Your task to perform on an android device: turn on wifi Image 0: 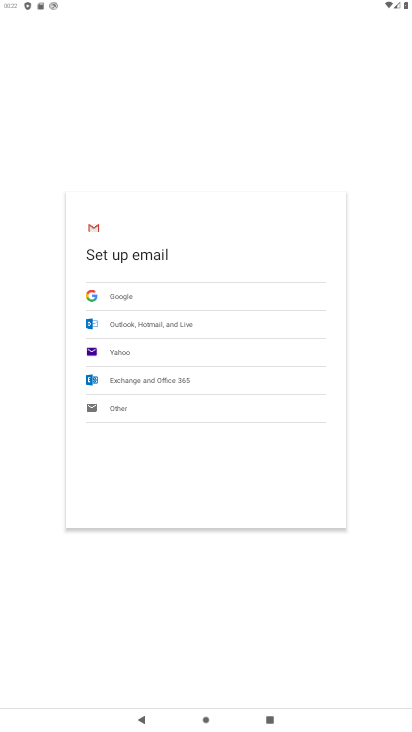
Step 0: press home button
Your task to perform on an android device: turn on wifi Image 1: 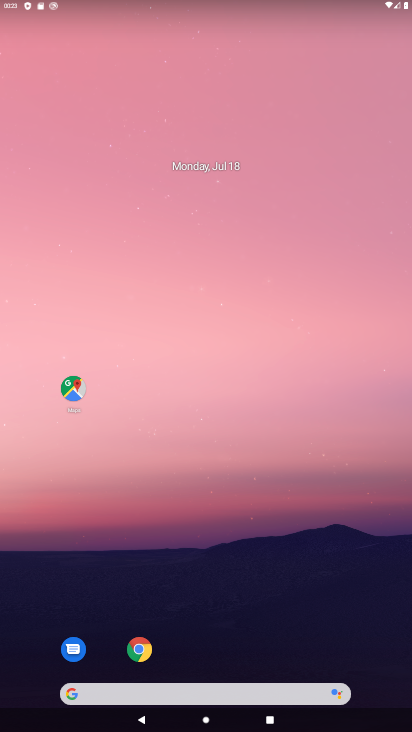
Step 1: drag from (211, 559) to (199, 29)
Your task to perform on an android device: turn on wifi Image 2: 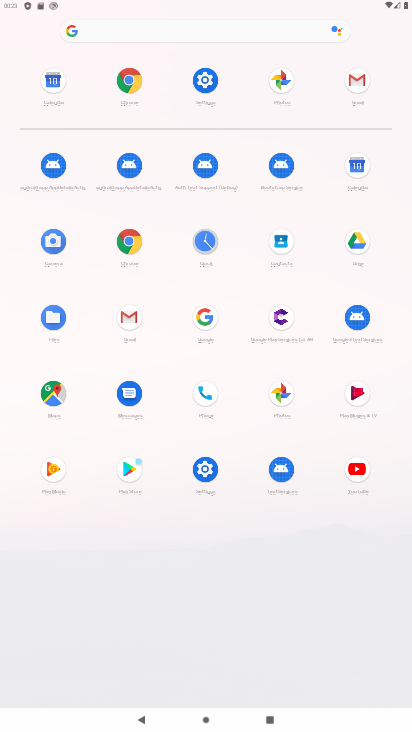
Step 2: click (201, 83)
Your task to perform on an android device: turn on wifi Image 3: 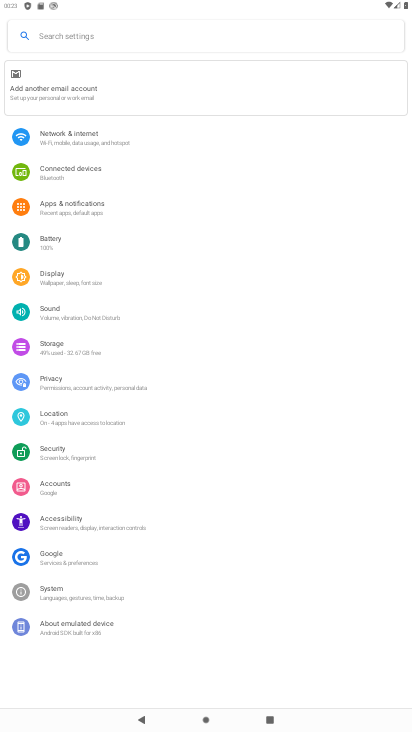
Step 3: click (86, 148)
Your task to perform on an android device: turn on wifi Image 4: 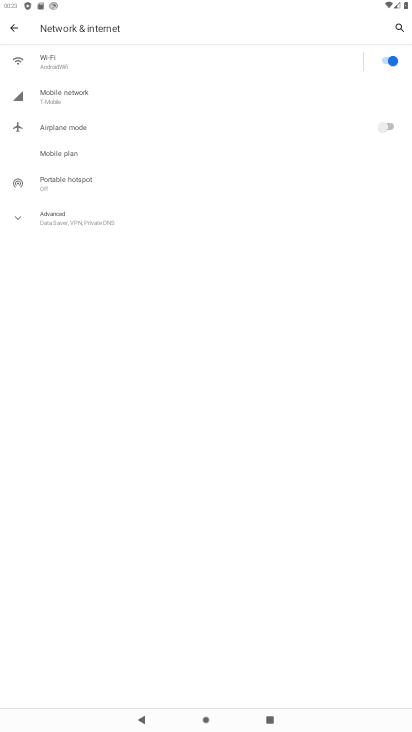
Step 4: task complete